Your task to perform on an android device: Open calendar and show me the first week of next month Image 0: 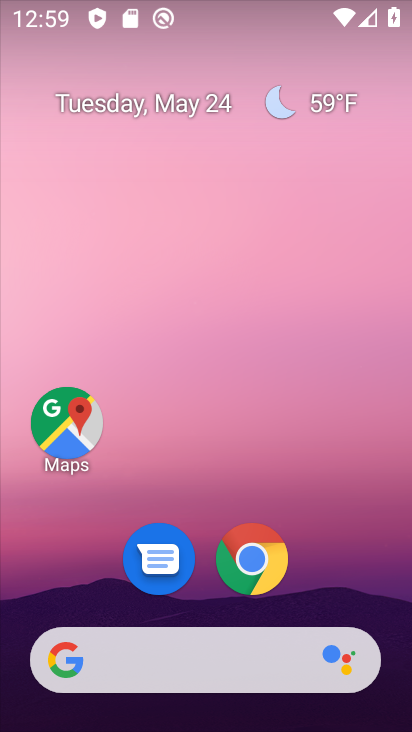
Step 0: drag from (391, 650) to (325, 99)
Your task to perform on an android device: Open calendar and show me the first week of next month Image 1: 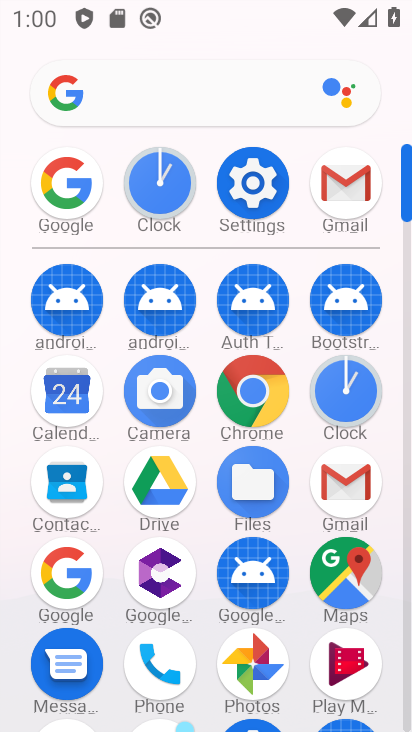
Step 1: click (88, 411)
Your task to perform on an android device: Open calendar and show me the first week of next month Image 2: 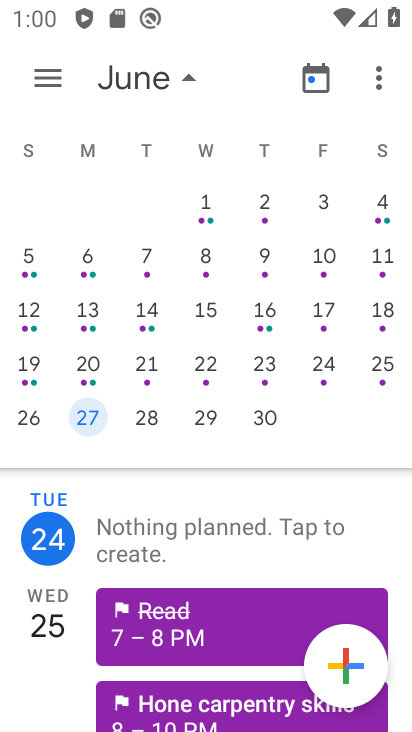
Step 2: drag from (353, 301) to (39, 290)
Your task to perform on an android device: Open calendar and show me the first week of next month Image 3: 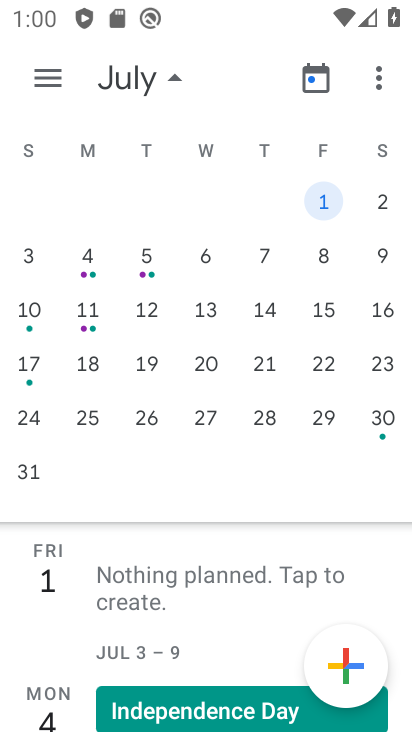
Step 3: click (95, 263)
Your task to perform on an android device: Open calendar and show me the first week of next month Image 4: 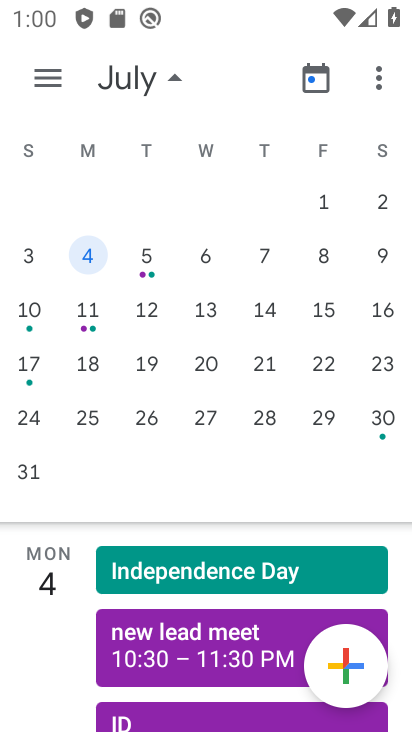
Step 4: task complete